Your task to perform on an android device: When is my next meeting? Image 0: 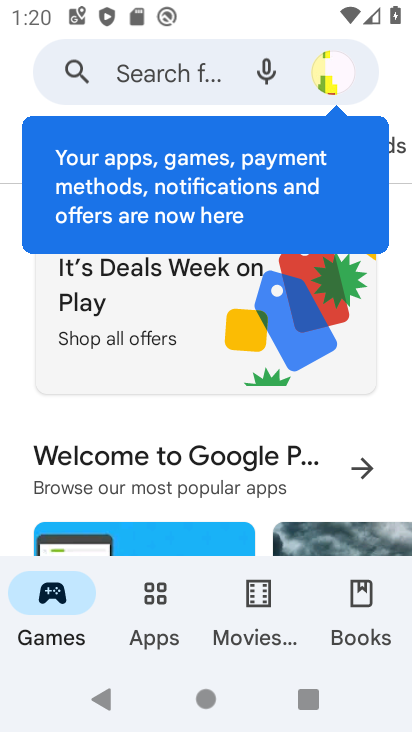
Step 0: press home button
Your task to perform on an android device: When is my next meeting? Image 1: 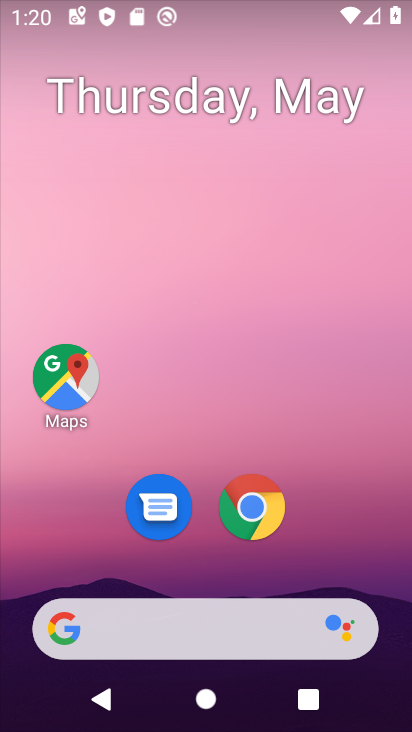
Step 1: drag from (344, 625) to (359, 154)
Your task to perform on an android device: When is my next meeting? Image 2: 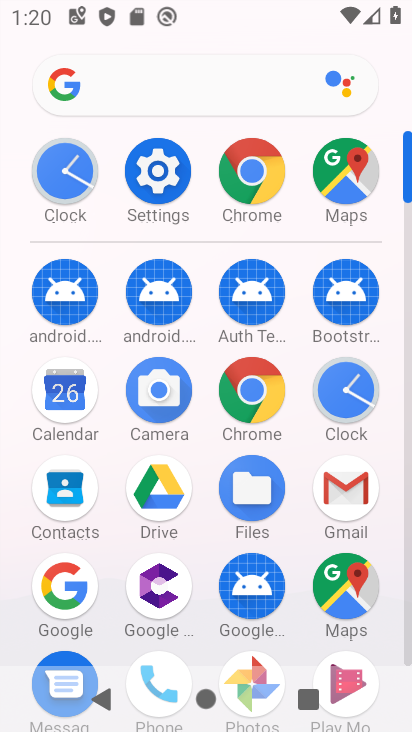
Step 2: click (79, 385)
Your task to perform on an android device: When is my next meeting? Image 3: 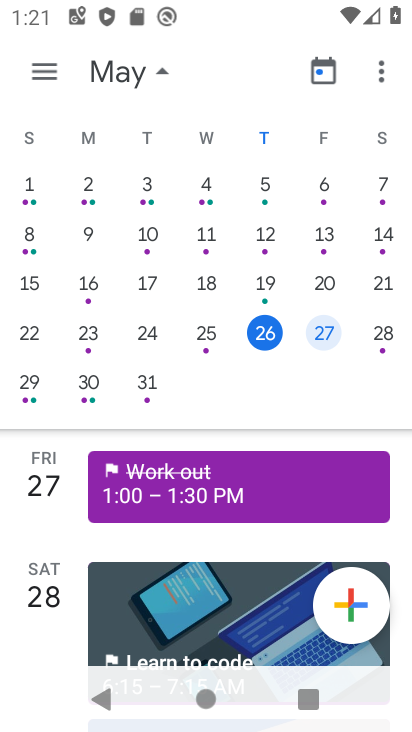
Step 3: click (332, 334)
Your task to perform on an android device: When is my next meeting? Image 4: 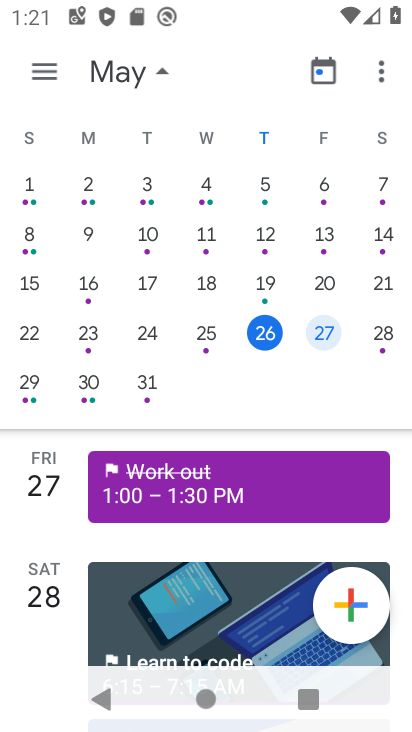
Step 4: click (332, 334)
Your task to perform on an android device: When is my next meeting? Image 5: 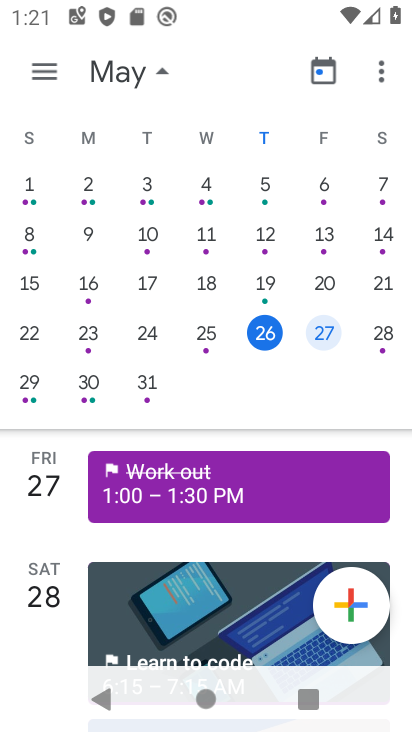
Step 5: task complete